Your task to perform on an android device: What's the weather? Image 0: 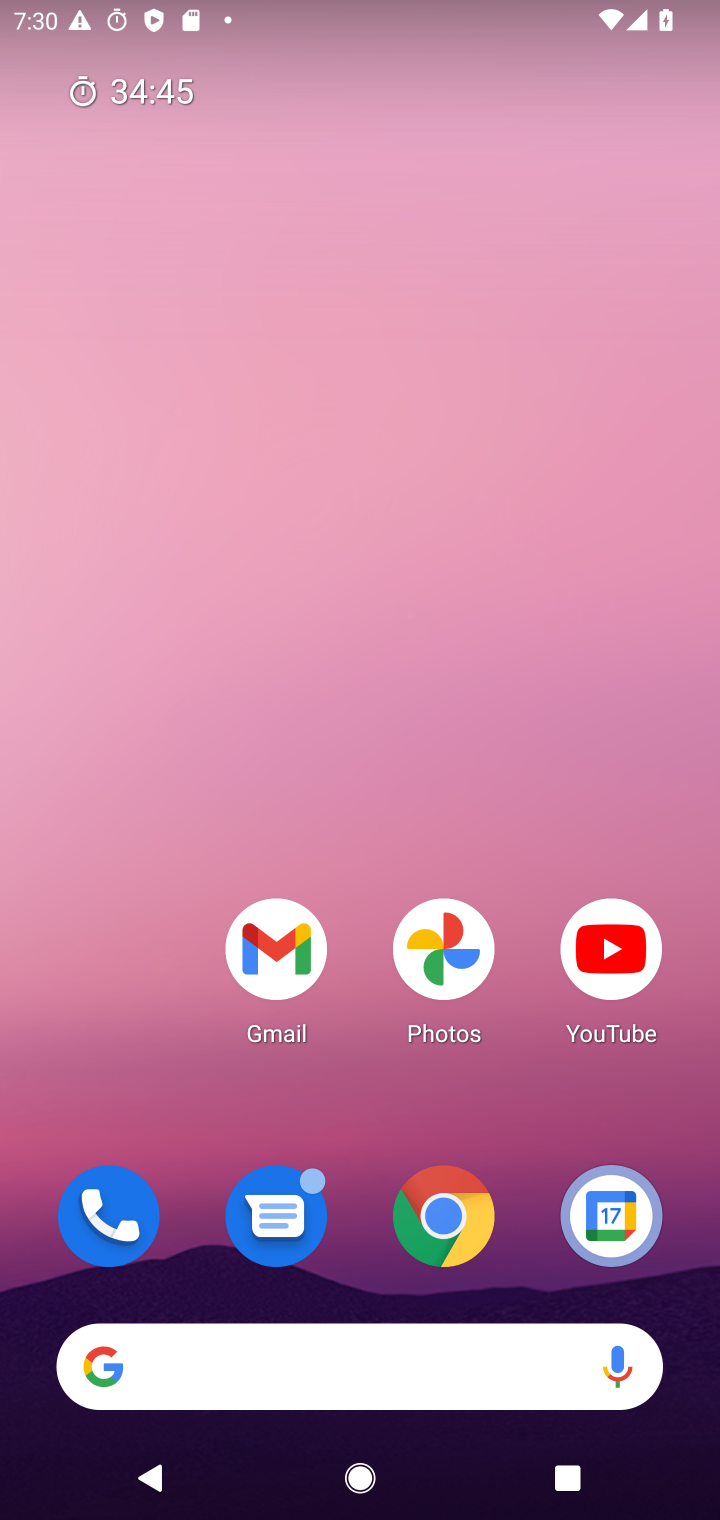
Step 0: click (429, 1213)
Your task to perform on an android device: What's the weather? Image 1: 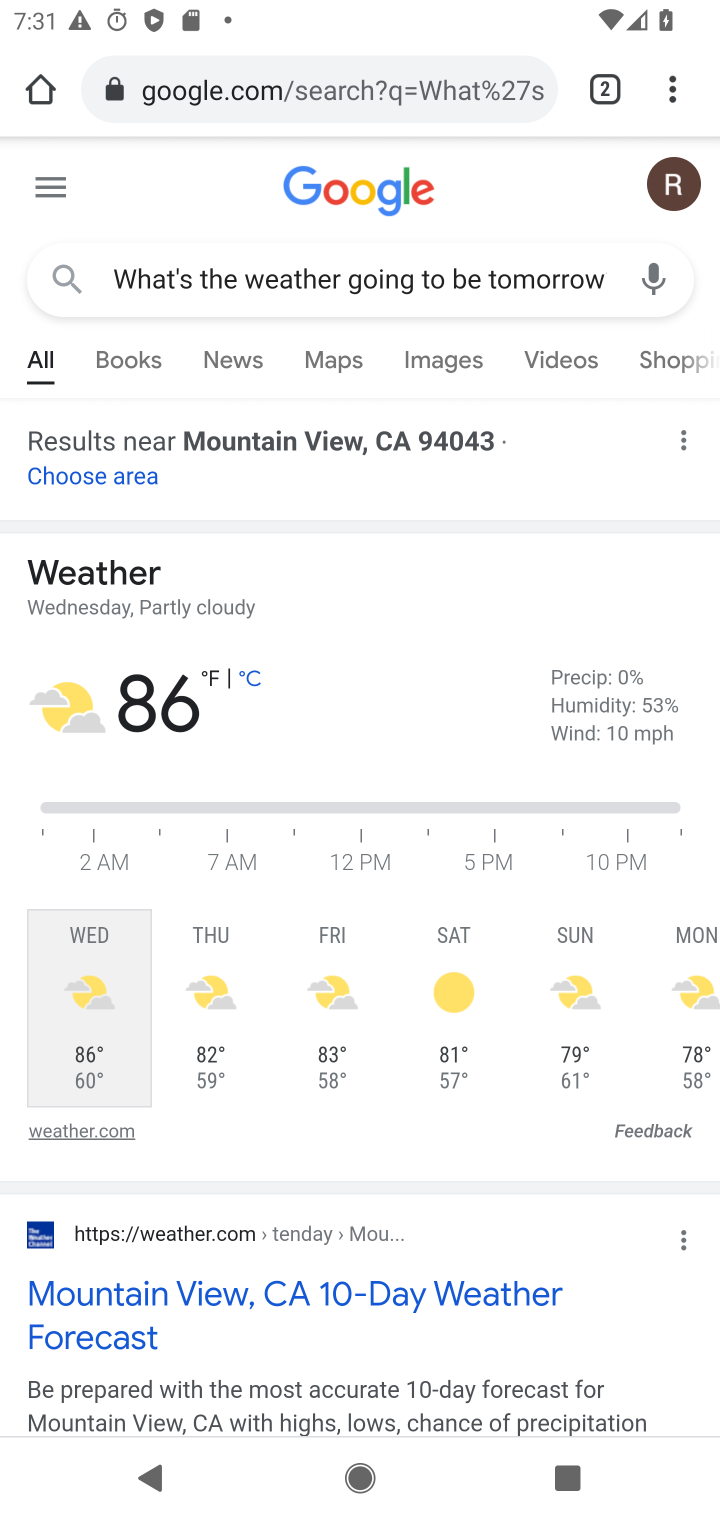
Step 1: click (229, 64)
Your task to perform on an android device: What's the weather? Image 2: 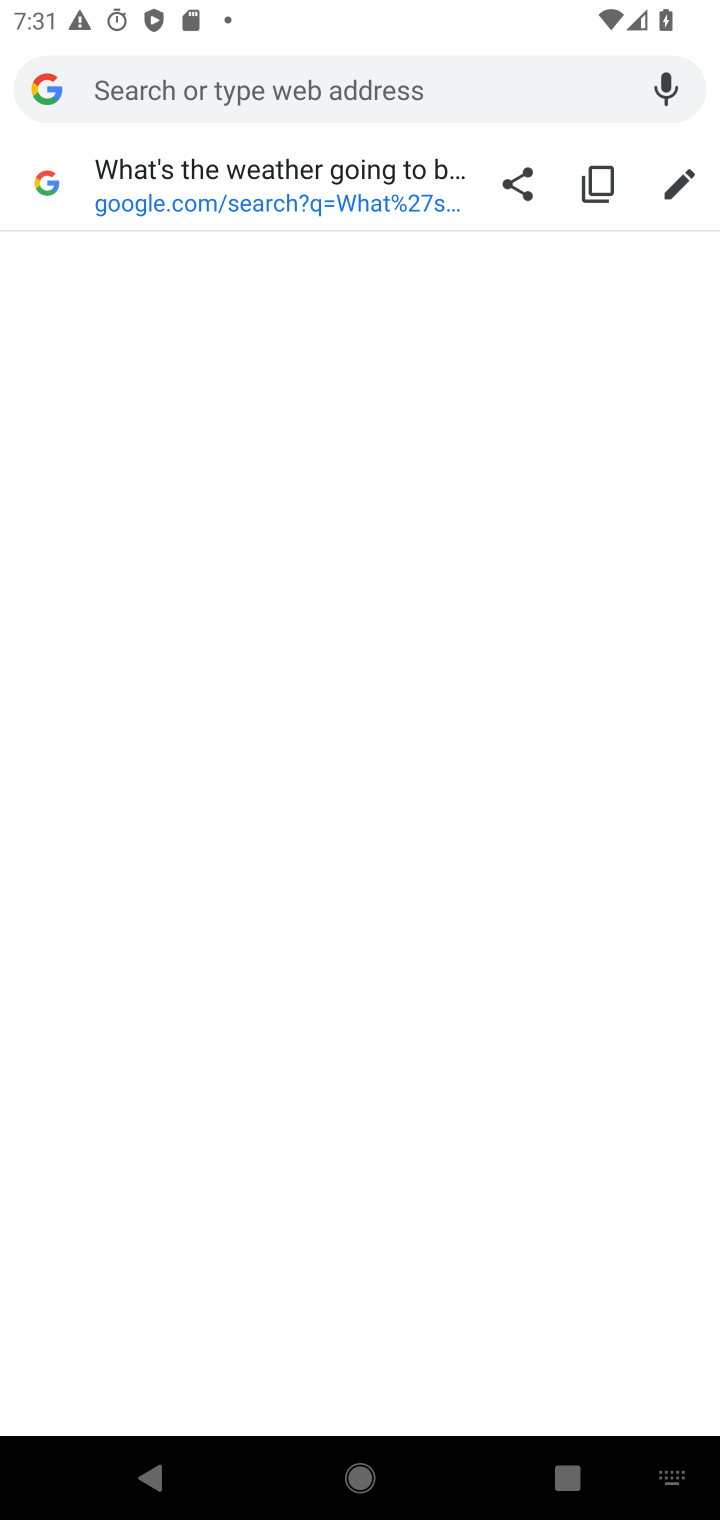
Step 2: type "What's the weather?"
Your task to perform on an android device: What's the weather? Image 3: 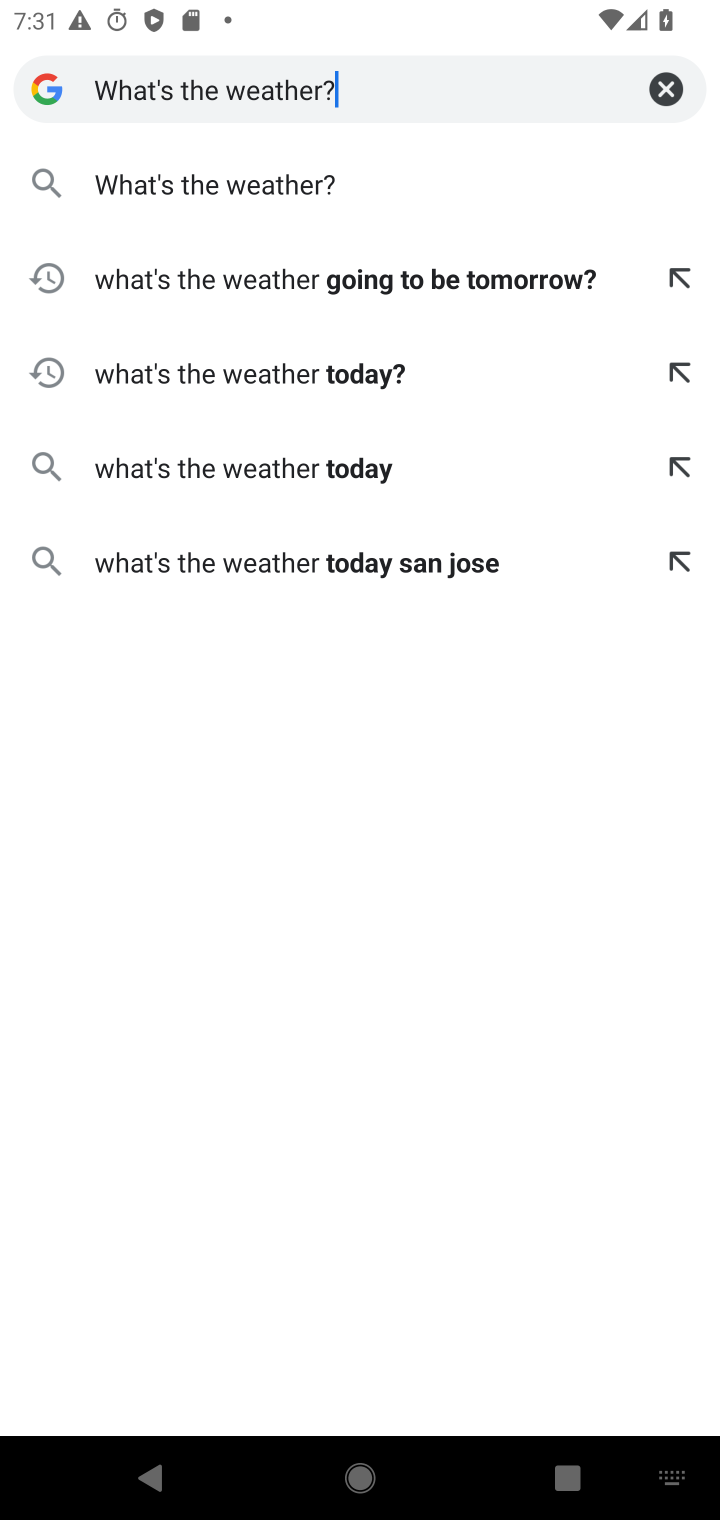
Step 3: click (284, 162)
Your task to perform on an android device: What's the weather? Image 4: 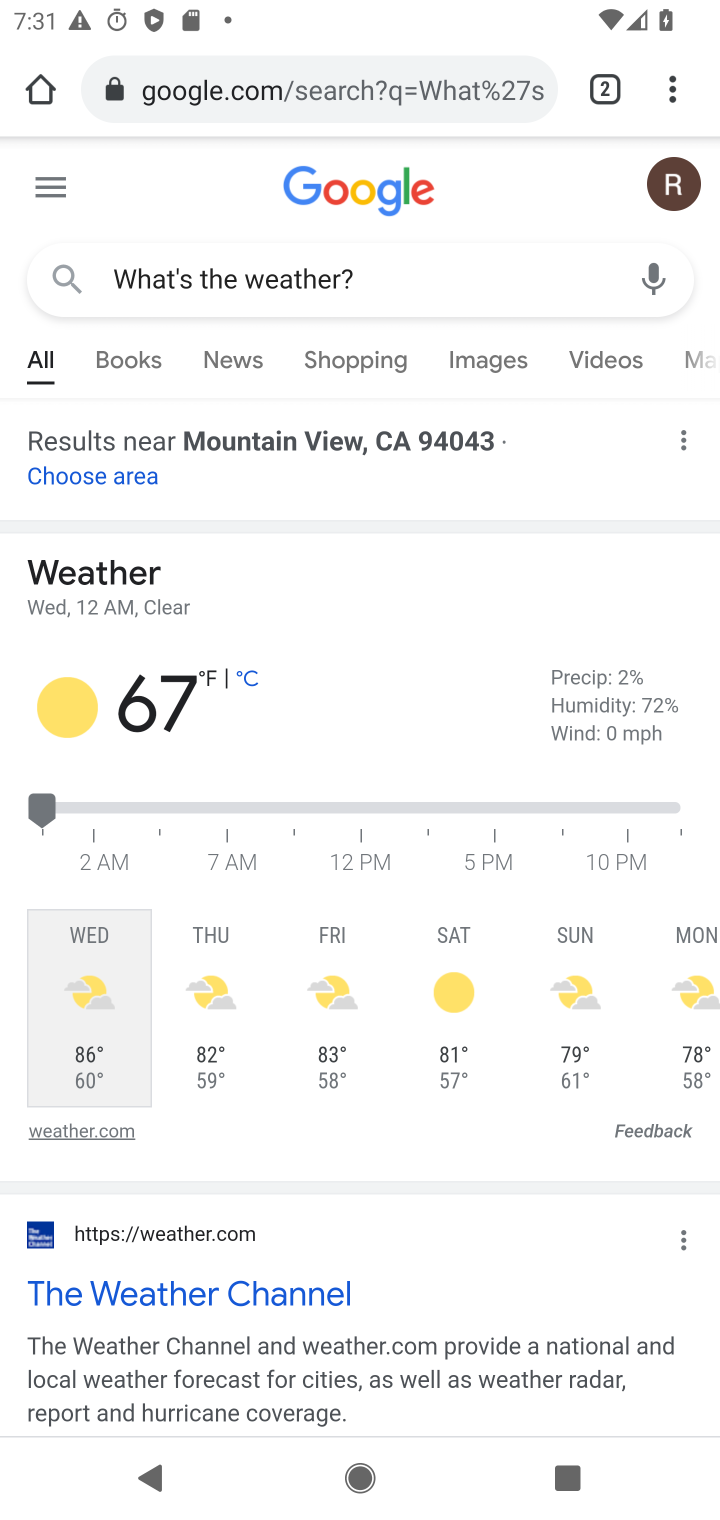
Step 4: task complete